Your task to perform on an android device: change notifications settings Image 0: 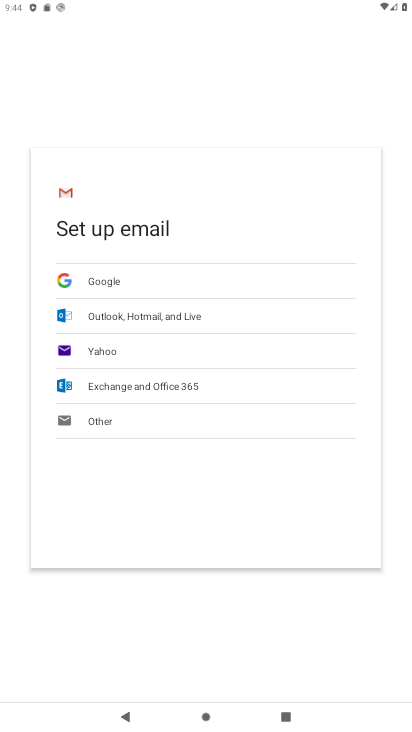
Step 0: press home button
Your task to perform on an android device: change notifications settings Image 1: 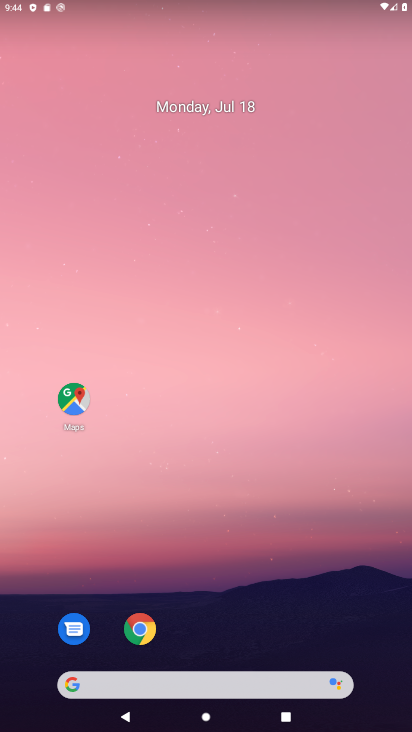
Step 1: drag from (193, 680) to (151, 201)
Your task to perform on an android device: change notifications settings Image 2: 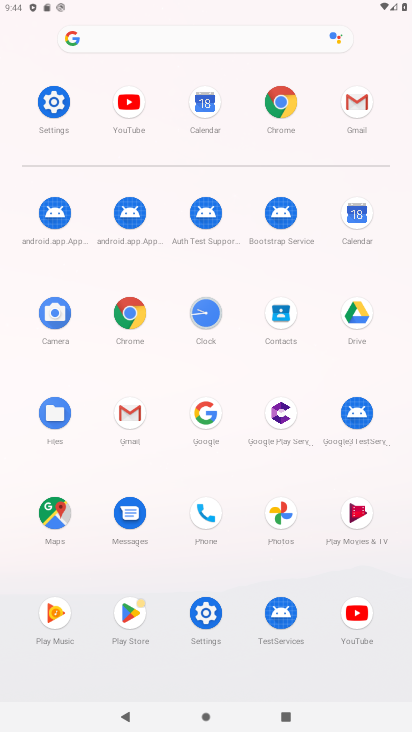
Step 2: click (208, 623)
Your task to perform on an android device: change notifications settings Image 3: 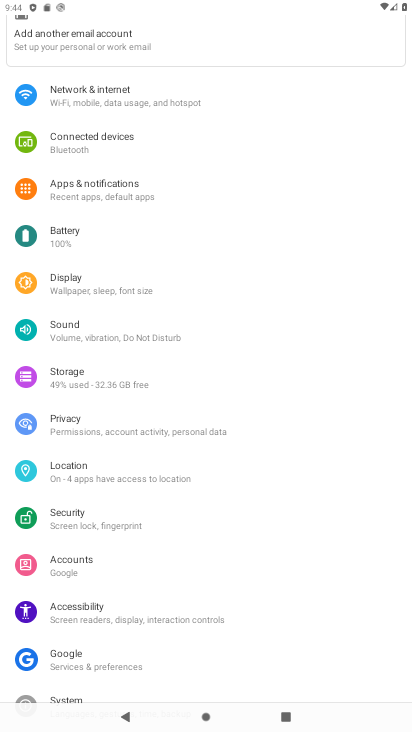
Step 3: click (85, 332)
Your task to perform on an android device: change notifications settings Image 4: 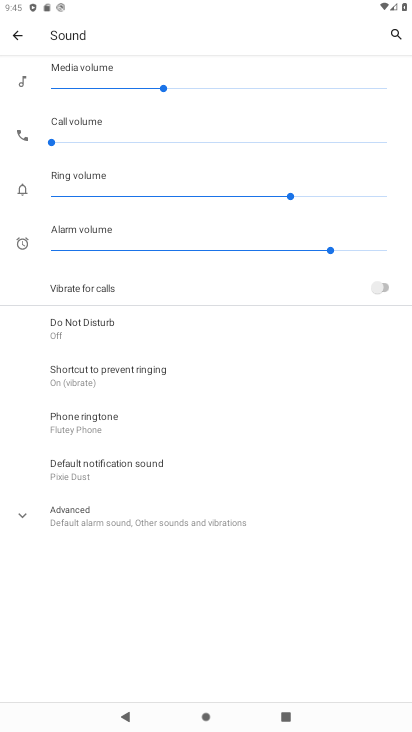
Step 4: click (385, 284)
Your task to perform on an android device: change notifications settings Image 5: 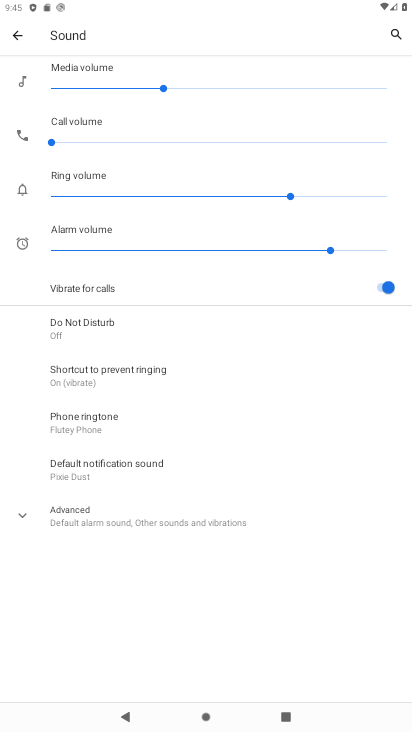
Step 5: task complete